Your task to perform on an android device: Go to accessibility settings Image 0: 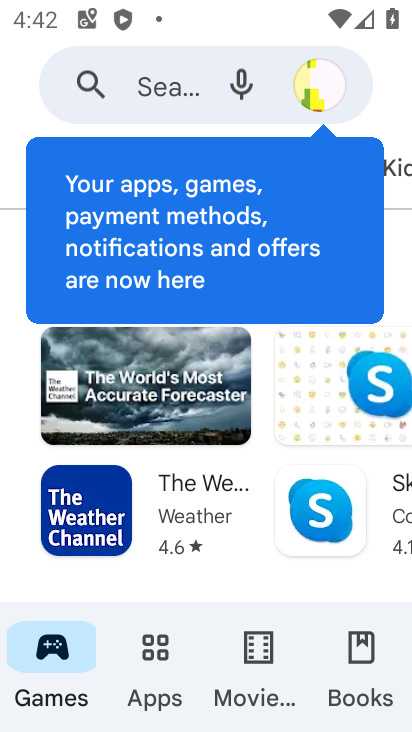
Step 0: press back button
Your task to perform on an android device: Go to accessibility settings Image 1: 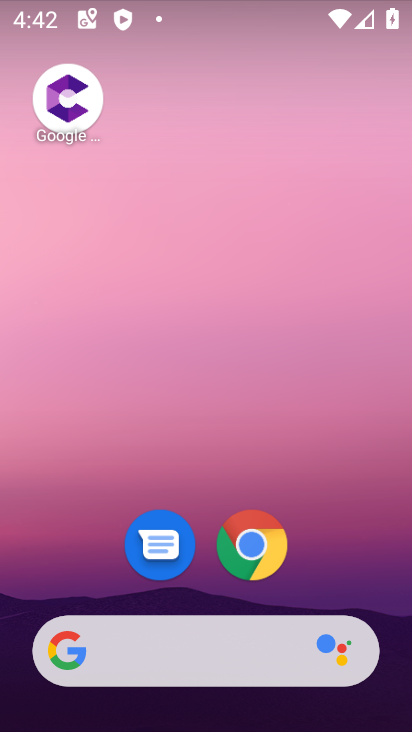
Step 1: drag from (342, 540) to (256, 1)
Your task to perform on an android device: Go to accessibility settings Image 2: 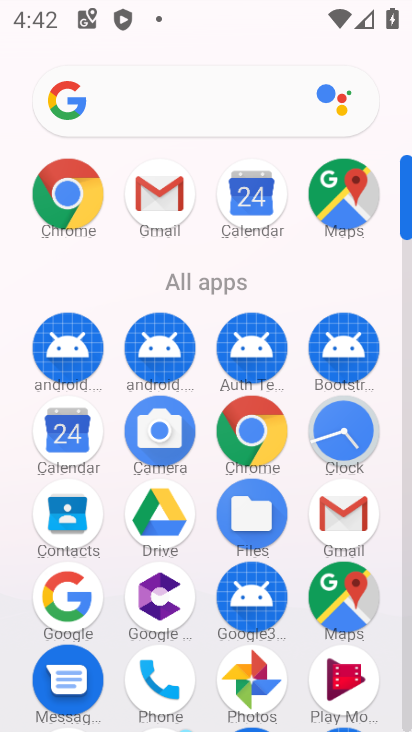
Step 2: drag from (375, 605) to (369, 245)
Your task to perform on an android device: Go to accessibility settings Image 3: 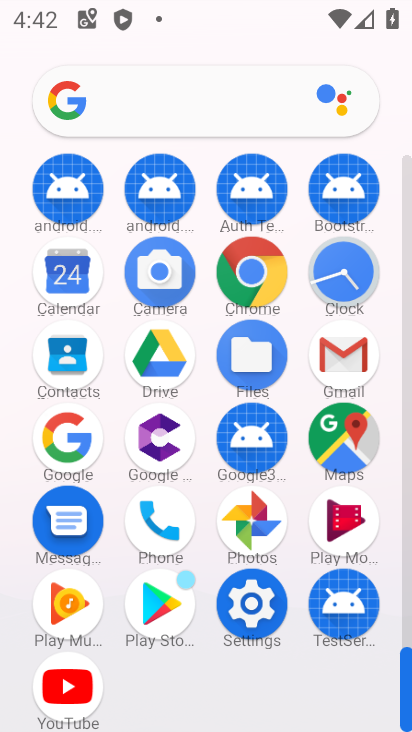
Step 3: click (248, 601)
Your task to perform on an android device: Go to accessibility settings Image 4: 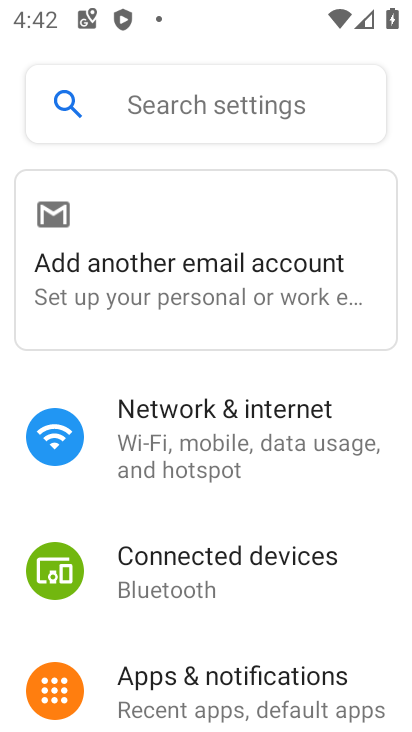
Step 4: drag from (262, 642) to (287, 205)
Your task to perform on an android device: Go to accessibility settings Image 5: 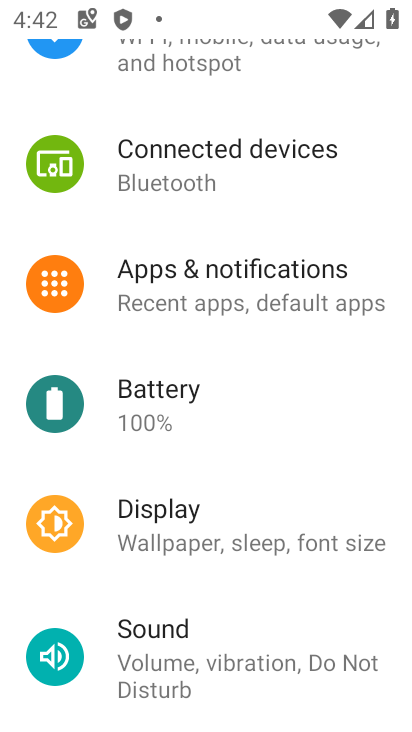
Step 5: drag from (254, 666) to (322, 190)
Your task to perform on an android device: Go to accessibility settings Image 6: 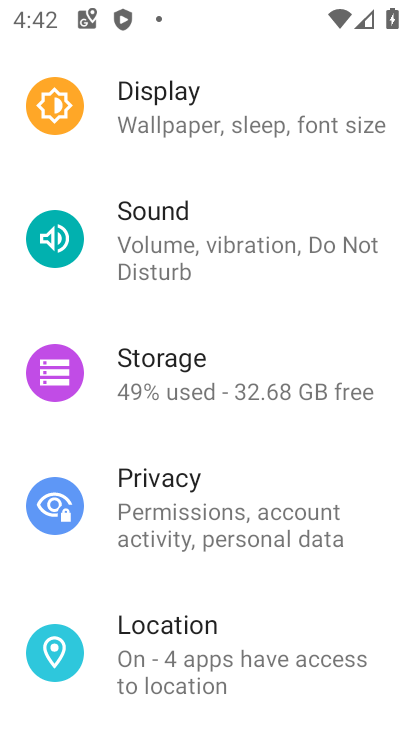
Step 6: drag from (257, 591) to (272, 200)
Your task to perform on an android device: Go to accessibility settings Image 7: 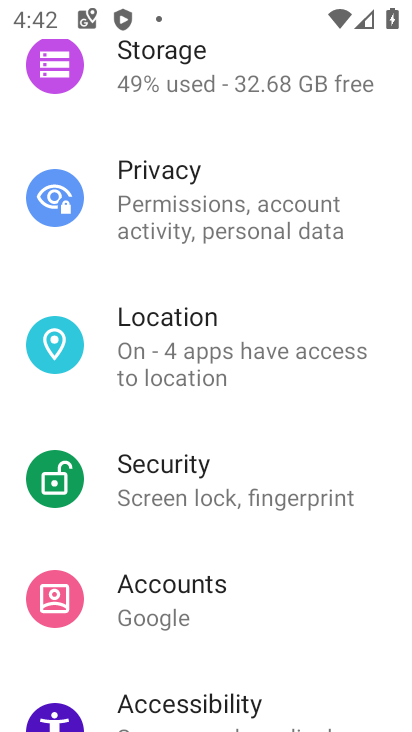
Step 7: drag from (193, 631) to (267, 267)
Your task to perform on an android device: Go to accessibility settings Image 8: 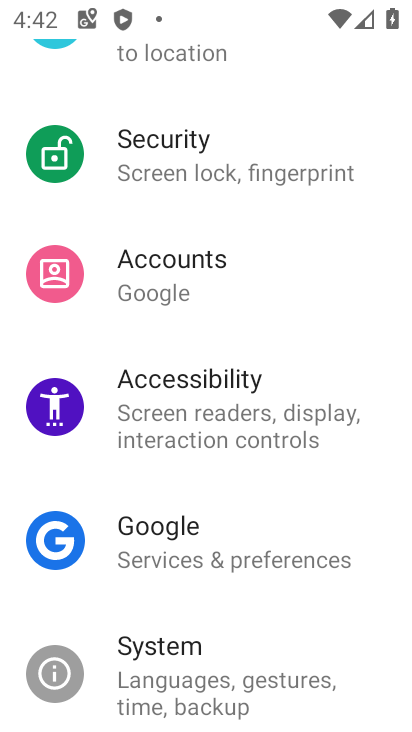
Step 8: click (198, 386)
Your task to perform on an android device: Go to accessibility settings Image 9: 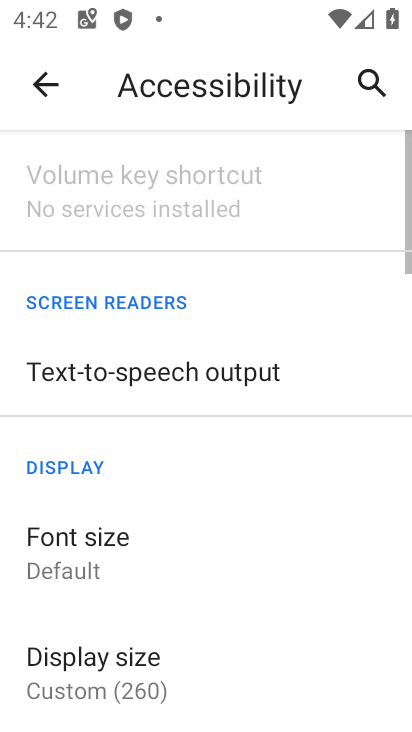
Step 9: task complete